Your task to perform on an android device: What's the weather? Image 0: 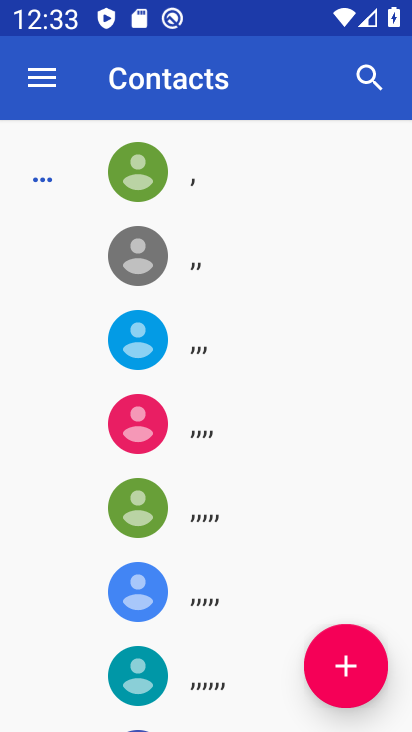
Step 0: press back button
Your task to perform on an android device: What's the weather? Image 1: 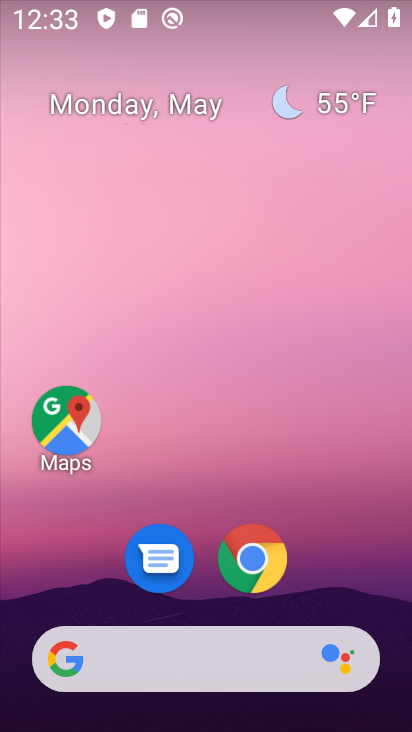
Step 1: drag from (363, 573) to (243, 53)
Your task to perform on an android device: What's the weather? Image 2: 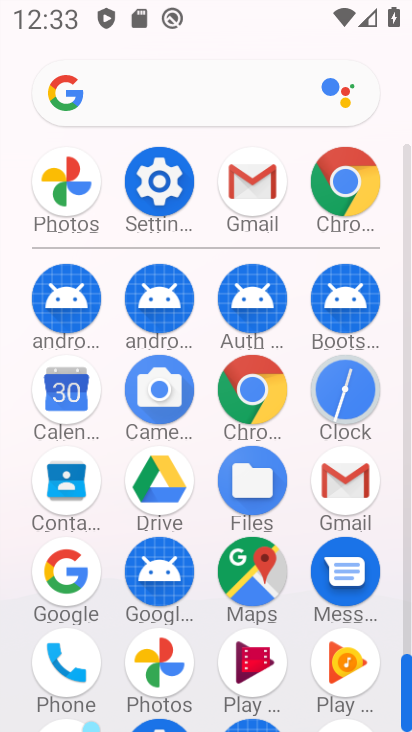
Step 2: click (249, 389)
Your task to perform on an android device: What's the weather? Image 3: 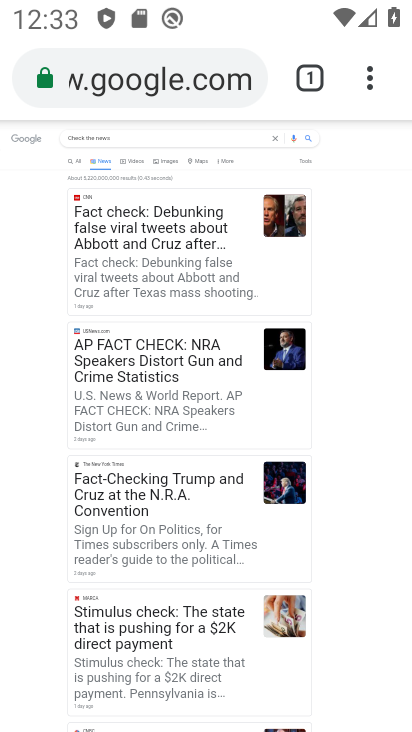
Step 3: click (146, 68)
Your task to perform on an android device: What's the weather? Image 4: 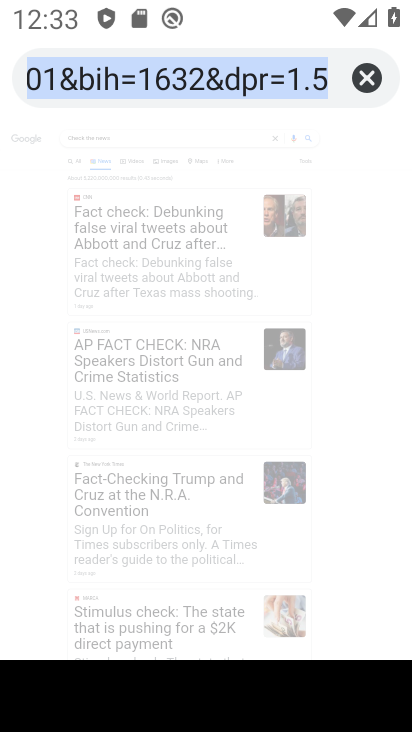
Step 4: click (355, 77)
Your task to perform on an android device: What's the weather? Image 5: 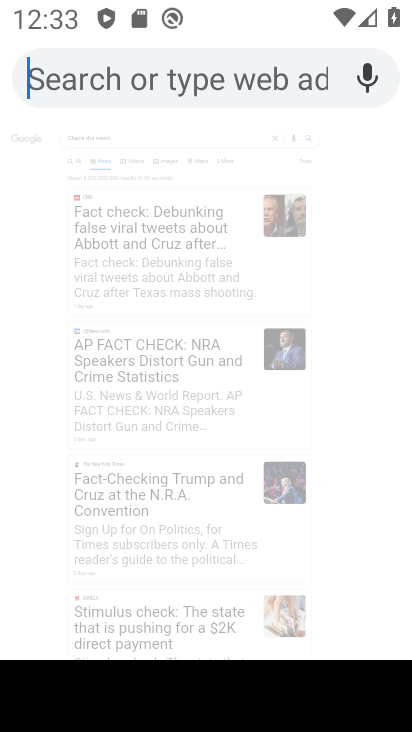
Step 5: type "What's the weather?"
Your task to perform on an android device: What's the weather? Image 6: 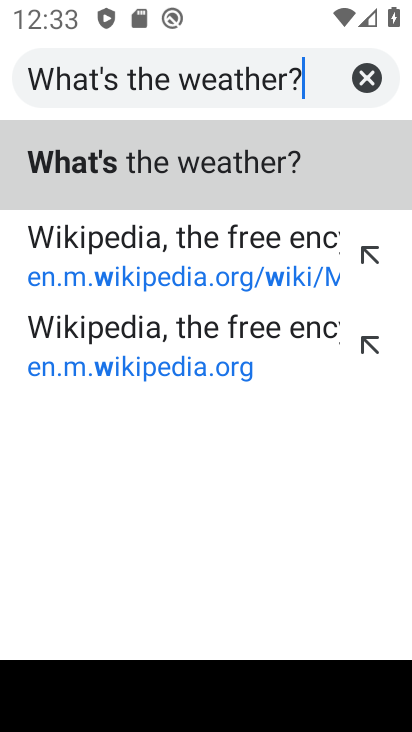
Step 6: type ""
Your task to perform on an android device: What's the weather? Image 7: 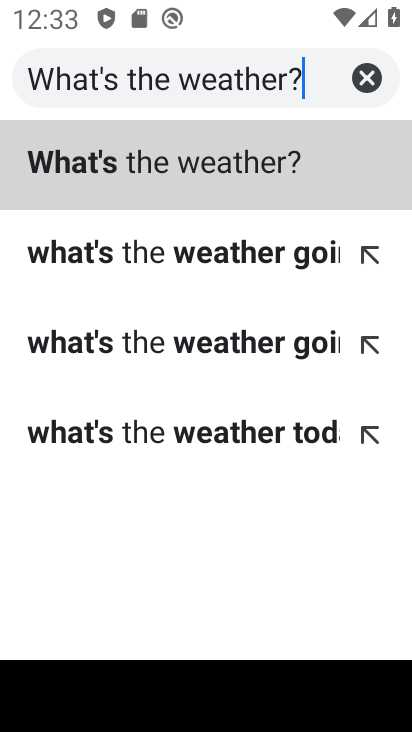
Step 7: click (223, 155)
Your task to perform on an android device: What's the weather? Image 8: 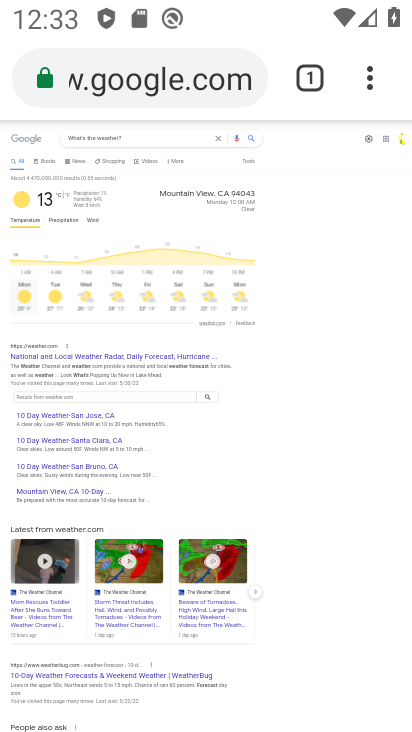
Step 8: task complete